Your task to perform on an android device: make emails show in primary in the gmail app Image 0: 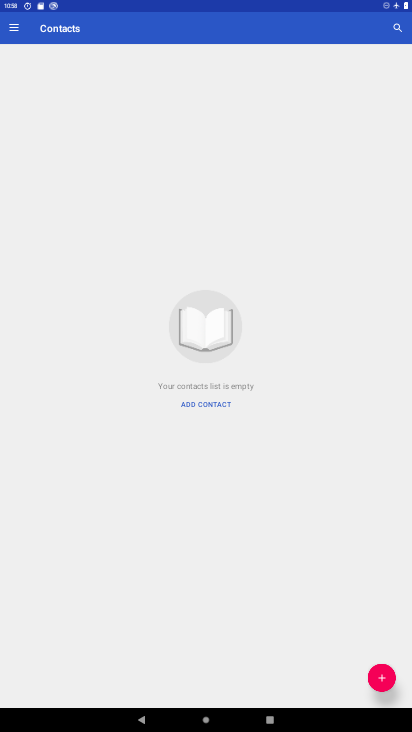
Step 0: press back button
Your task to perform on an android device: make emails show in primary in the gmail app Image 1: 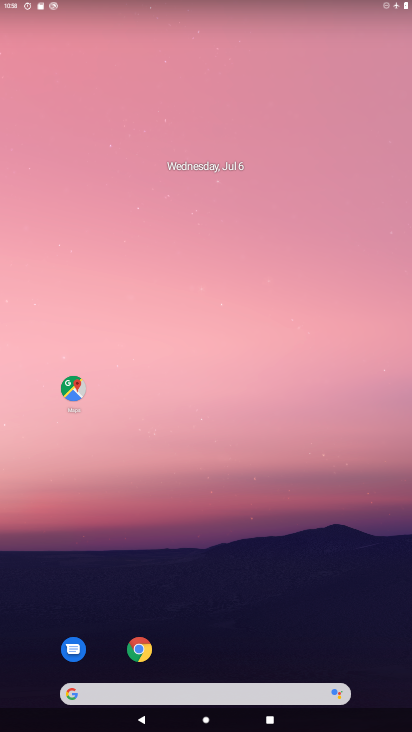
Step 1: drag from (366, 494) to (323, 84)
Your task to perform on an android device: make emails show in primary in the gmail app Image 2: 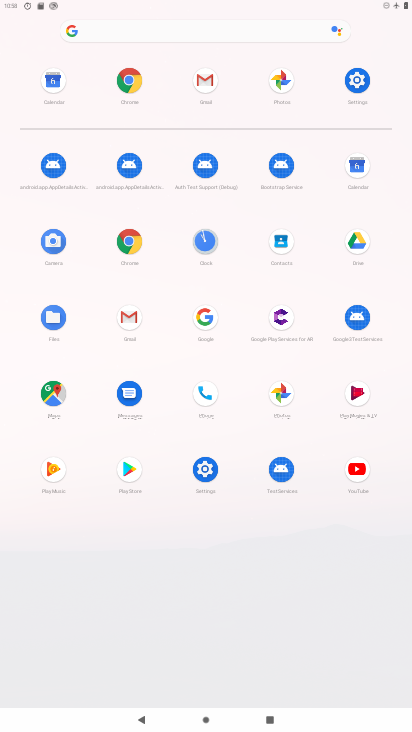
Step 2: click (133, 314)
Your task to perform on an android device: make emails show in primary in the gmail app Image 3: 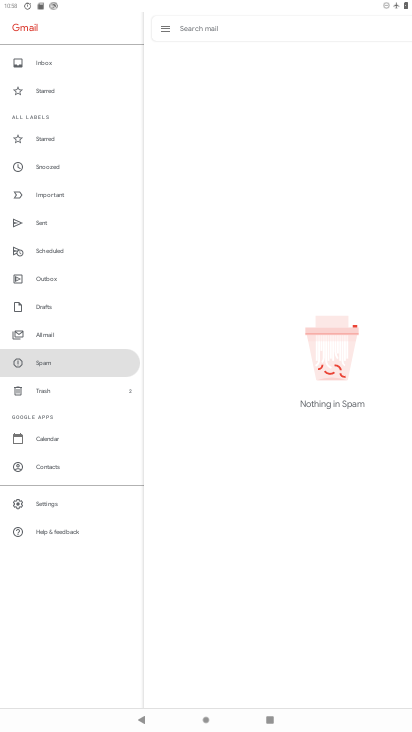
Step 3: click (38, 502)
Your task to perform on an android device: make emails show in primary in the gmail app Image 4: 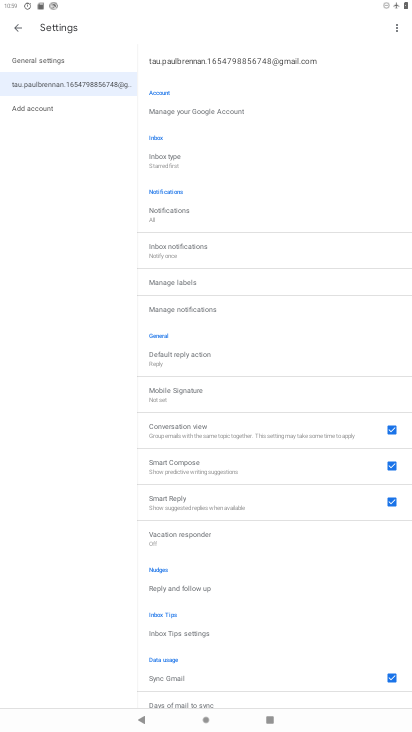
Step 4: click (152, 165)
Your task to perform on an android device: make emails show in primary in the gmail app Image 5: 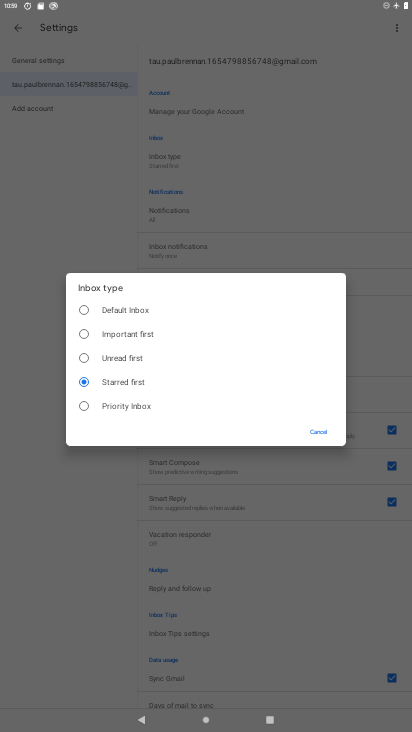
Step 5: click (84, 405)
Your task to perform on an android device: make emails show in primary in the gmail app Image 6: 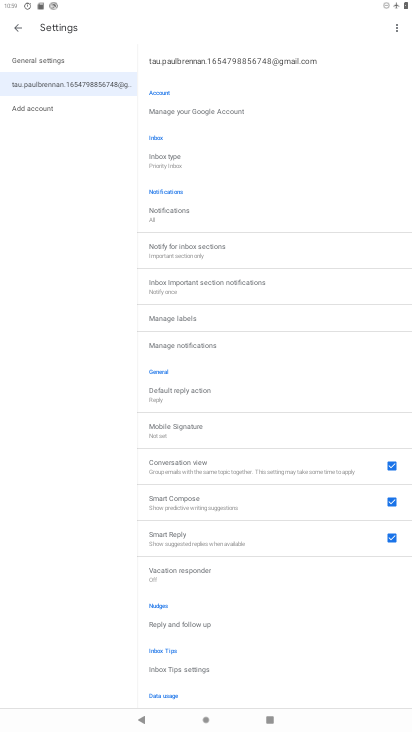
Step 6: click (163, 158)
Your task to perform on an android device: make emails show in primary in the gmail app Image 7: 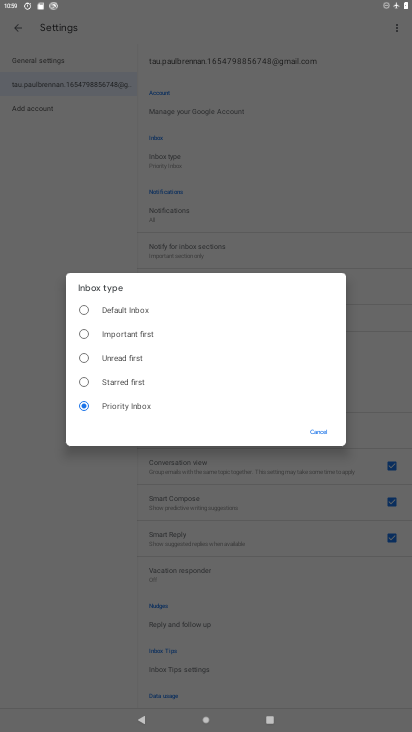
Step 7: click (2, 456)
Your task to perform on an android device: make emails show in primary in the gmail app Image 8: 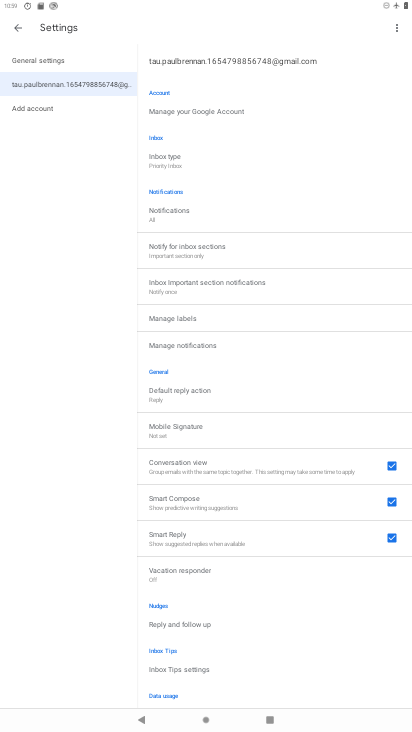
Step 8: click (157, 284)
Your task to perform on an android device: make emails show in primary in the gmail app Image 9: 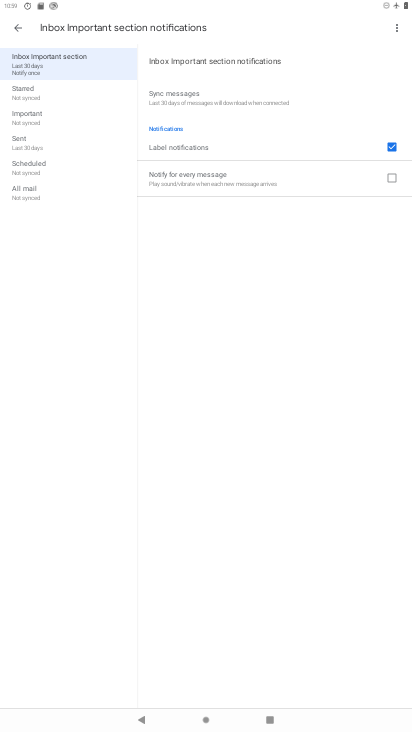
Step 9: task complete